Your task to perform on an android device: change keyboard looks Image 0: 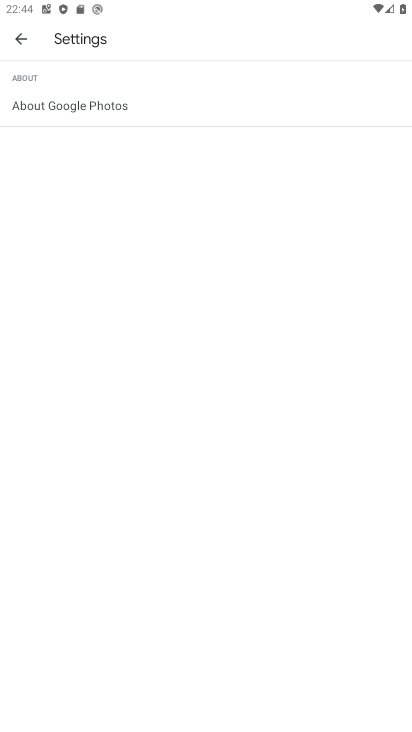
Step 0: press home button
Your task to perform on an android device: change keyboard looks Image 1: 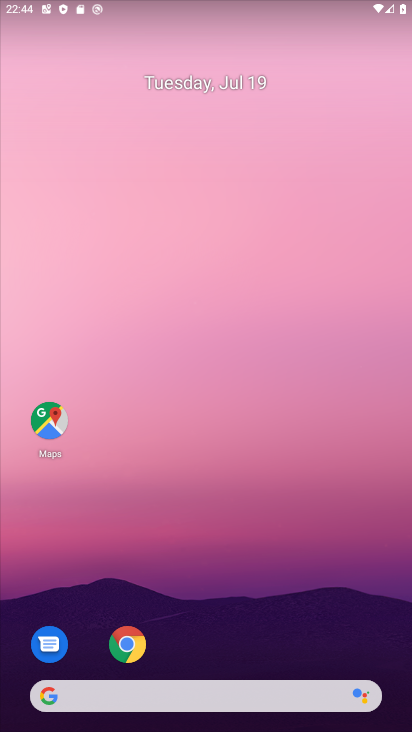
Step 1: drag from (227, 705) to (184, 322)
Your task to perform on an android device: change keyboard looks Image 2: 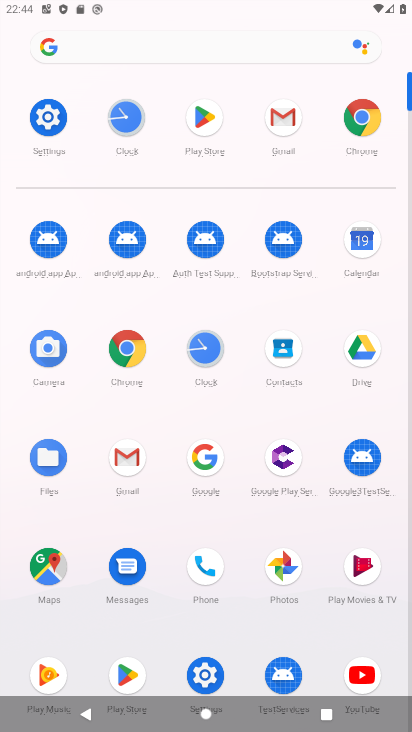
Step 2: click (49, 124)
Your task to perform on an android device: change keyboard looks Image 3: 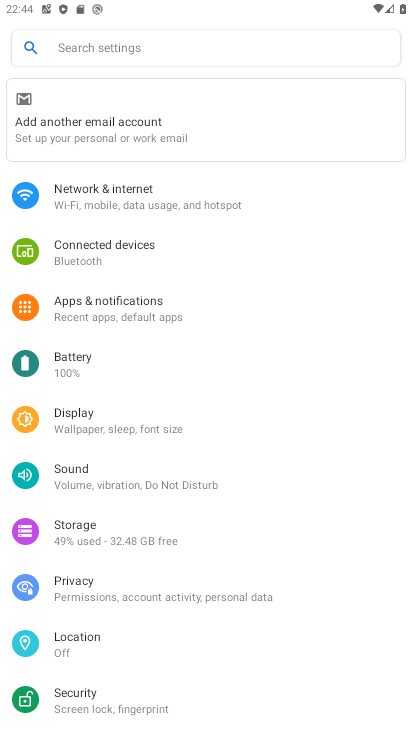
Step 3: drag from (88, 660) to (100, 305)
Your task to perform on an android device: change keyboard looks Image 4: 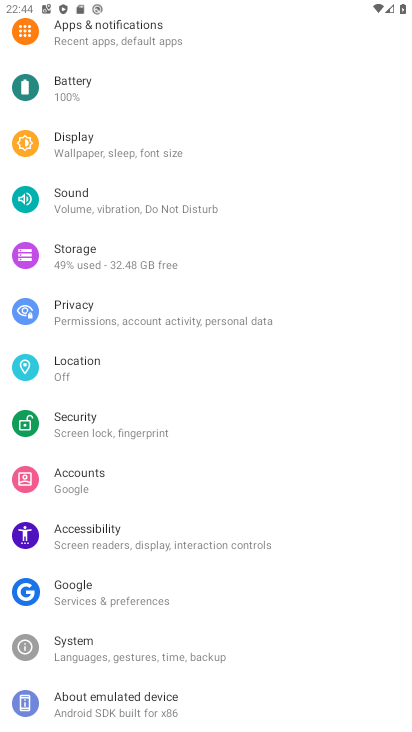
Step 4: drag from (133, 701) to (133, 422)
Your task to perform on an android device: change keyboard looks Image 5: 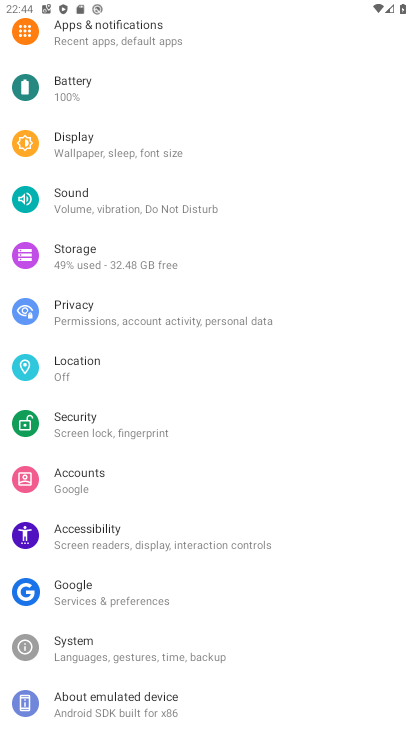
Step 5: click (91, 655)
Your task to perform on an android device: change keyboard looks Image 6: 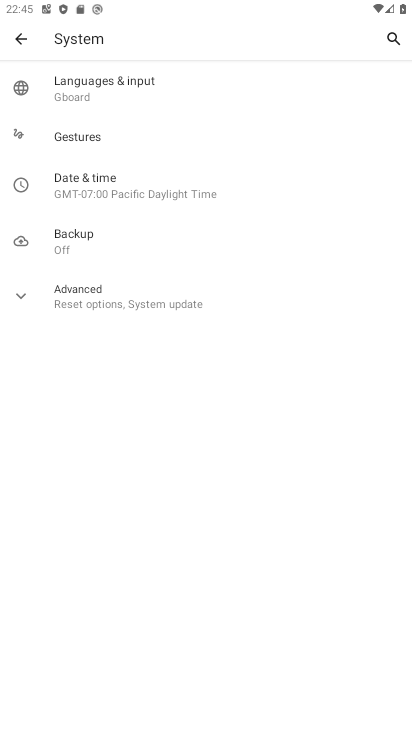
Step 6: click (83, 80)
Your task to perform on an android device: change keyboard looks Image 7: 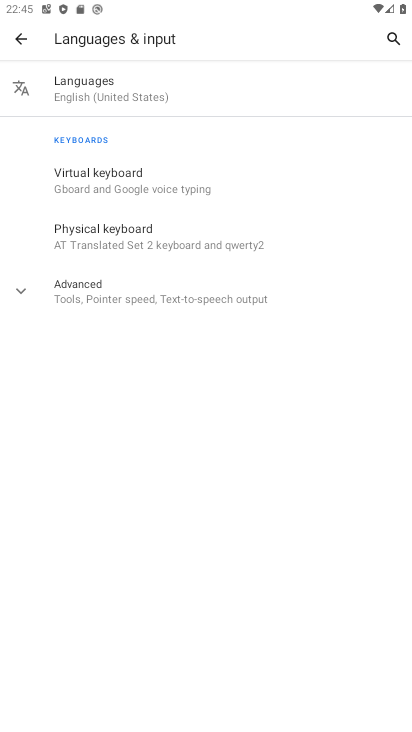
Step 7: click (106, 176)
Your task to perform on an android device: change keyboard looks Image 8: 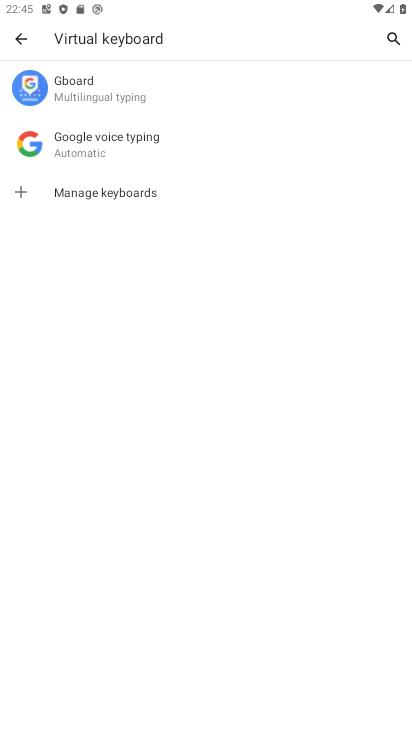
Step 8: click (100, 86)
Your task to perform on an android device: change keyboard looks Image 9: 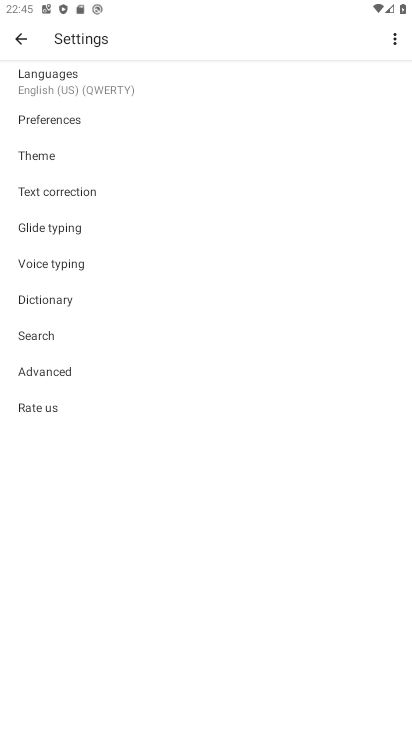
Step 9: click (32, 149)
Your task to perform on an android device: change keyboard looks Image 10: 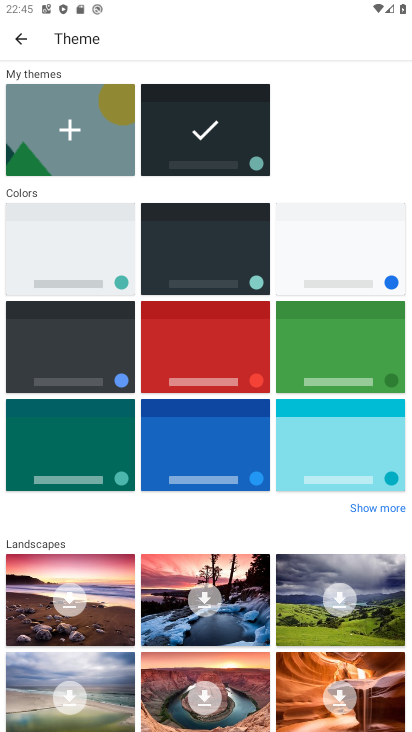
Step 10: click (208, 246)
Your task to perform on an android device: change keyboard looks Image 11: 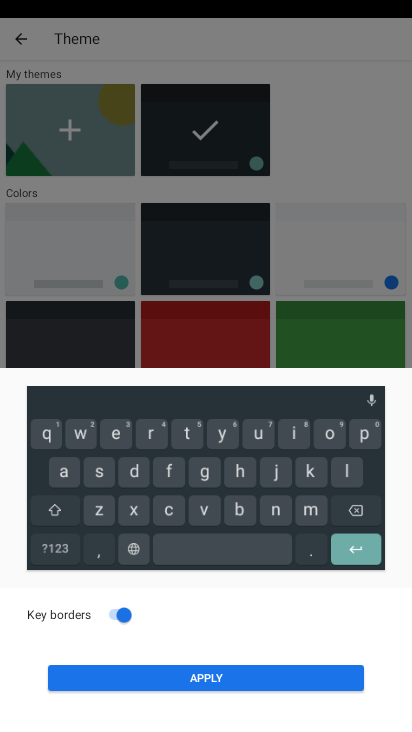
Step 11: click (183, 678)
Your task to perform on an android device: change keyboard looks Image 12: 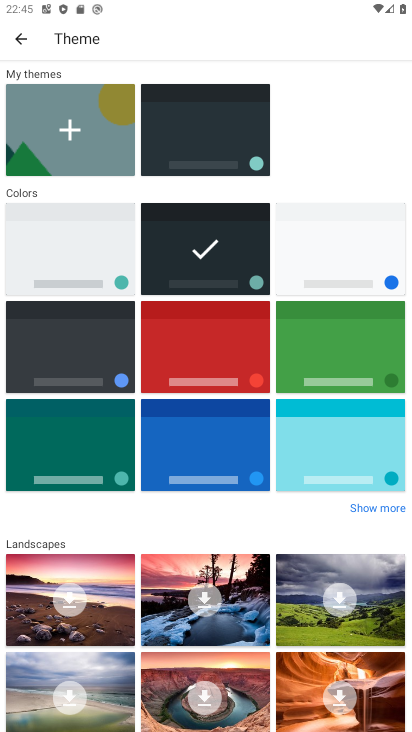
Step 12: task complete